Your task to perform on an android device: Empty the shopping cart on ebay.com. Search for jbl charge 4 on ebay.com, select the first entry, and add it to the cart. Image 0: 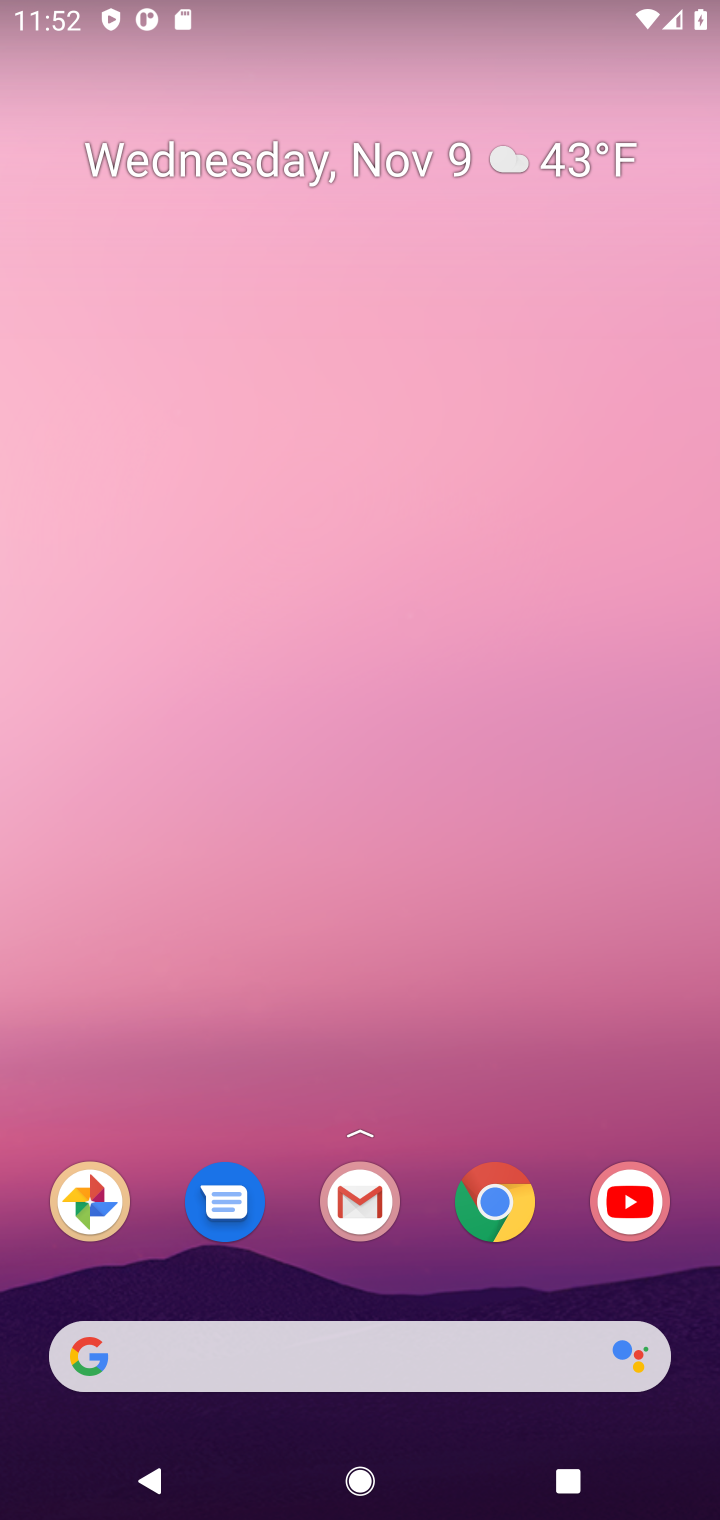
Step 0: click (490, 1195)
Your task to perform on an android device: Empty the shopping cart on ebay.com. Search for jbl charge 4 on ebay.com, select the first entry, and add it to the cart. Image 1: 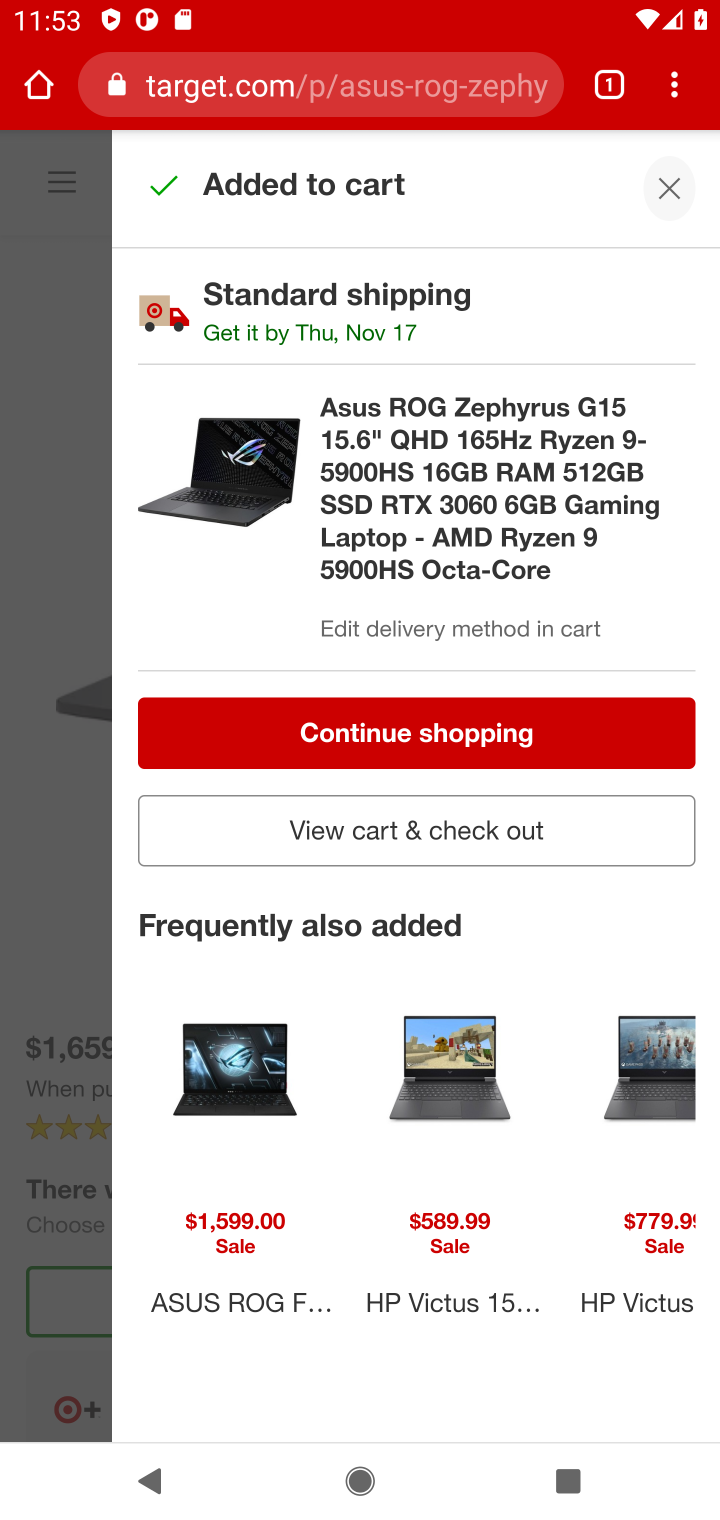
Step 1: click (406, 84)
Your task to perform on an android device: Empty the shopping cart on ebay.com. Search for jbl charge 4 on ebay.com, select the first entry, and add it to the cart. Image 2: 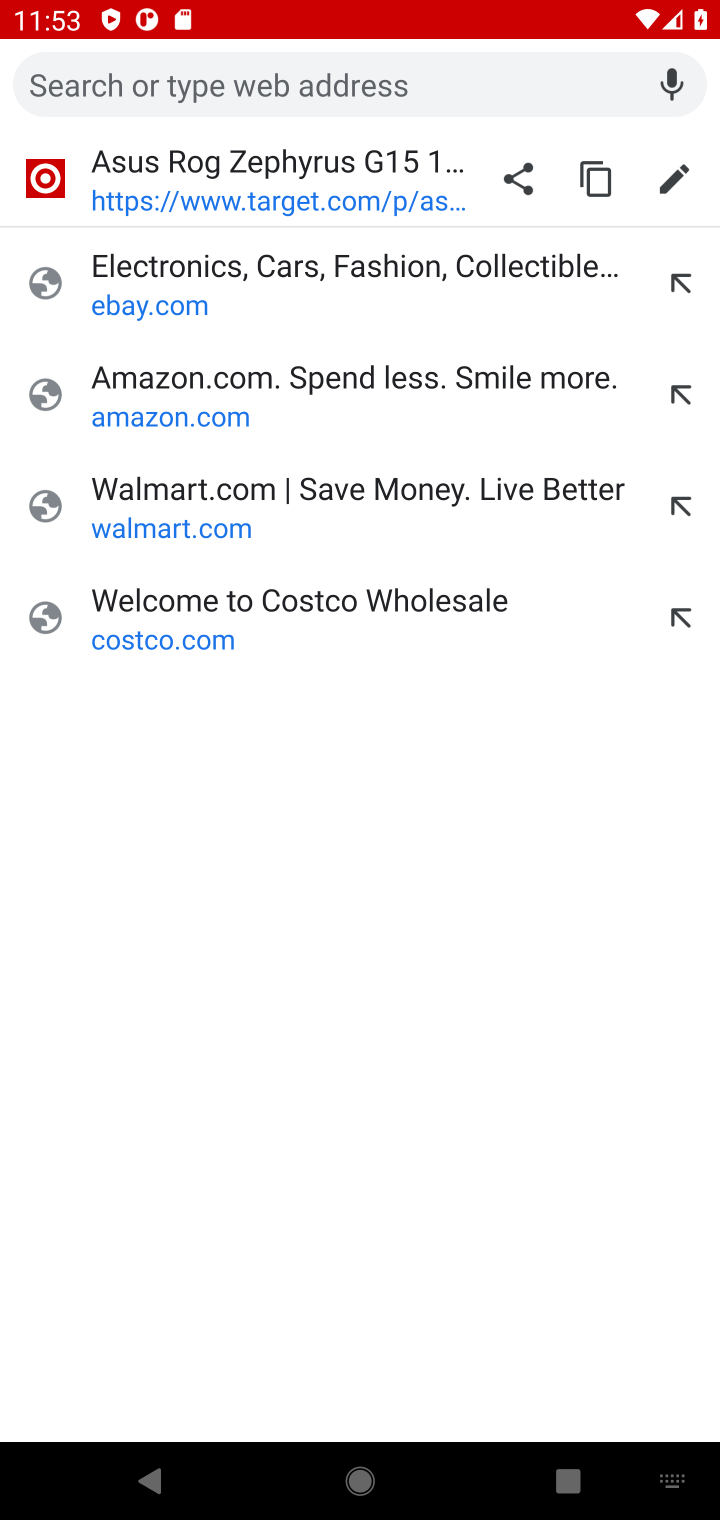
Step 2: click (436, 280)
Your task to perform on an android device: Empty the shopping cart on ebay.com. Search for jbl charge 4 on ebay.com, select the first entry, and add it to the cart. Image 3: 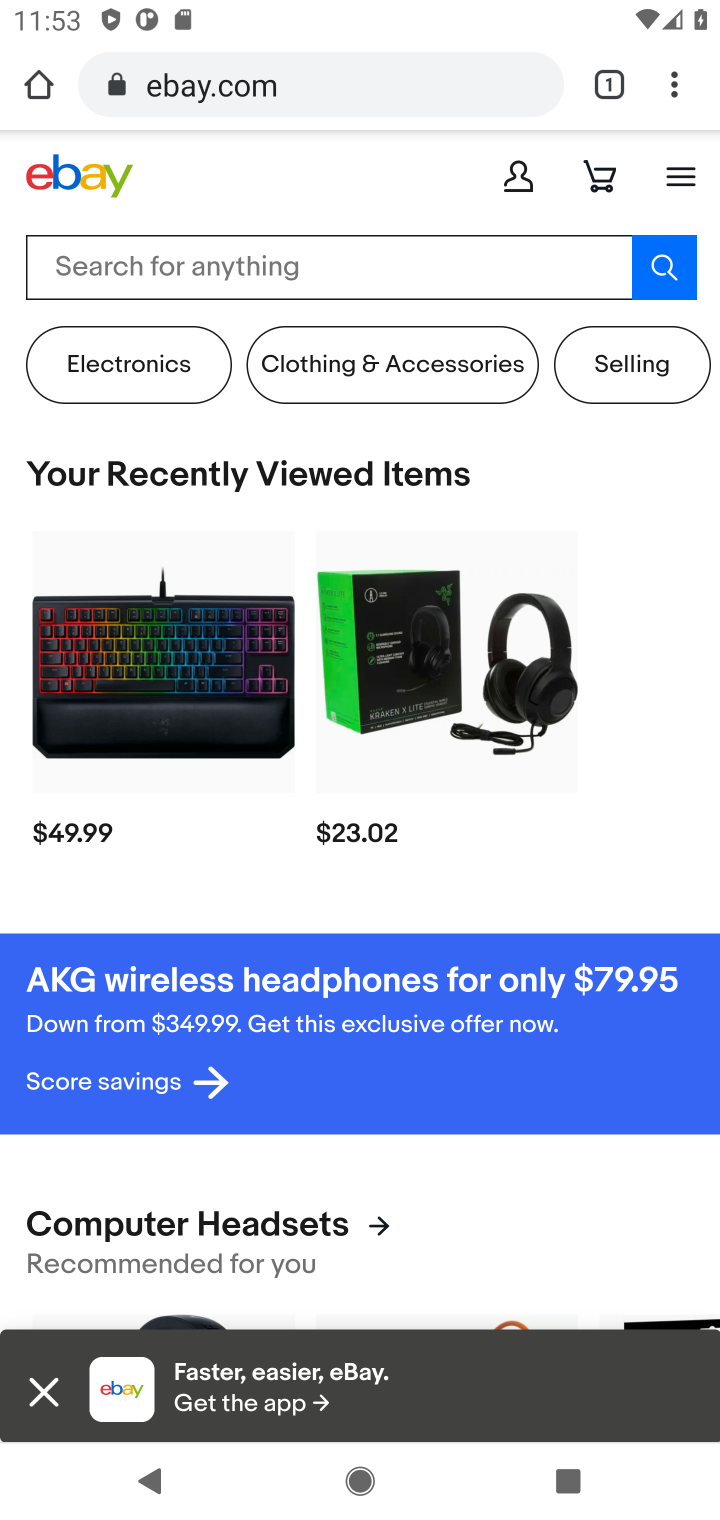
Step 3: click (611, 168)
Your task to perform on an android device: Empty the shopping cart on ebay.com. Search for jbl charge 4 on ebay.com, select the first entry, and add it to the cart. Image 4: 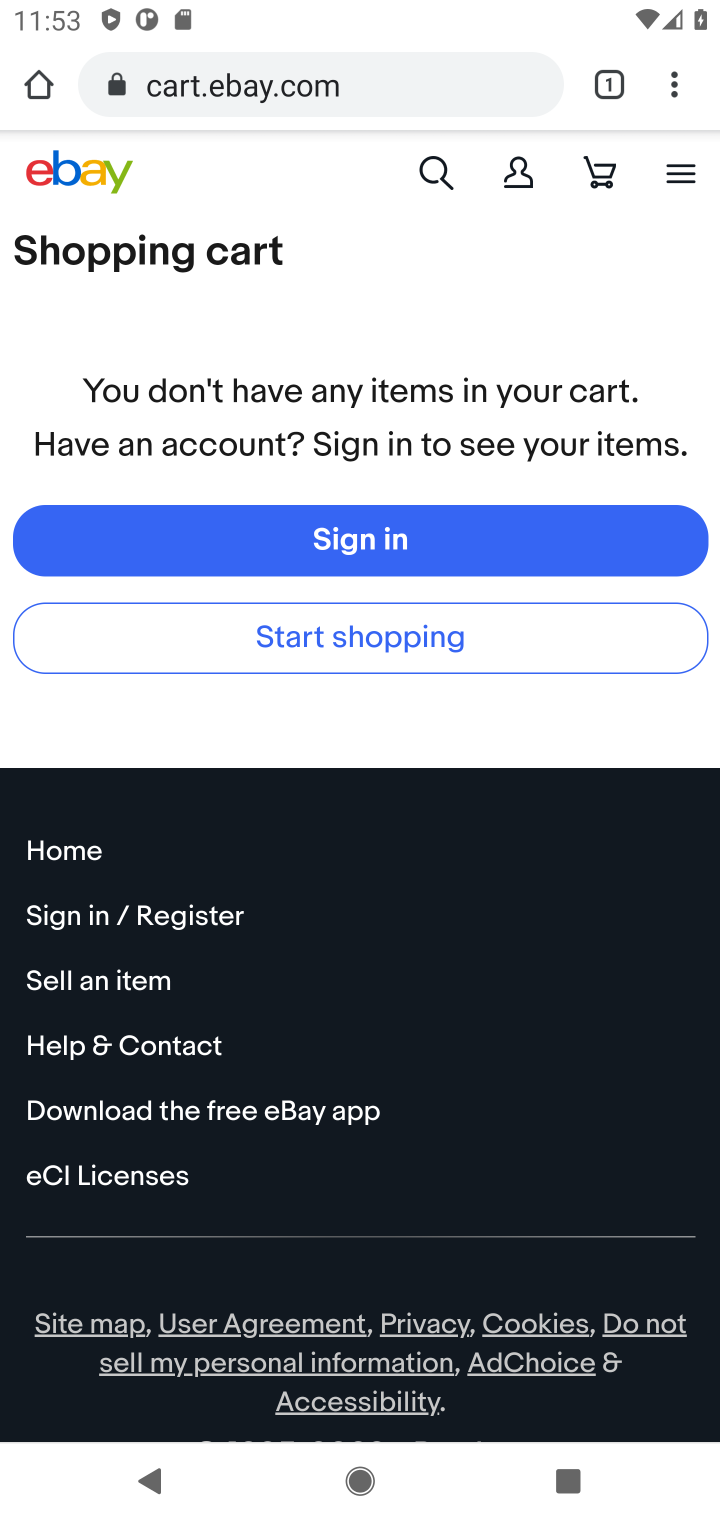
Step 4: click (436, 180)
Your task to perform on an android device: Empty the shopping cart on ebay.com. Search for jbl charge 4 on ebay.com, select the first entry, and add it to the cart. Image 5: 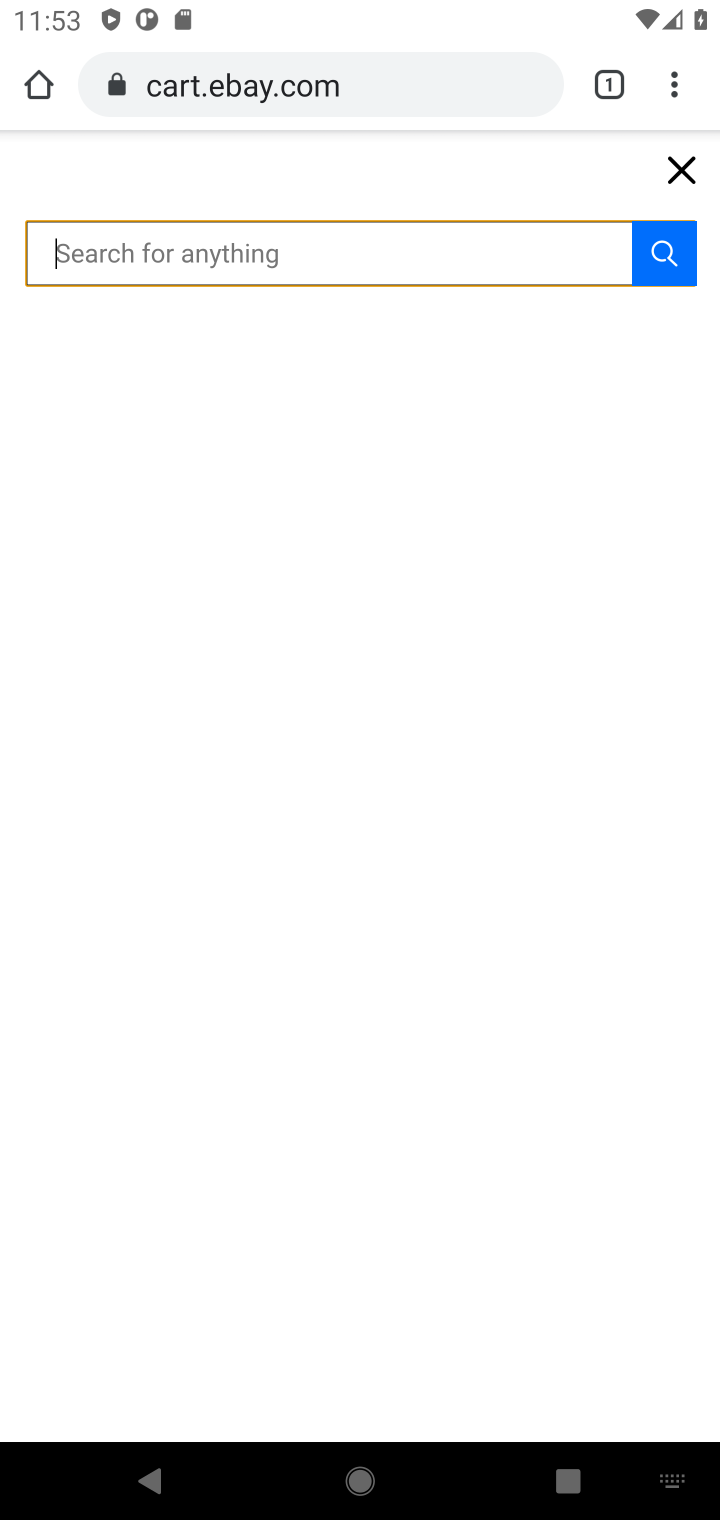
Step 5: type " jbl charge 4"
Your task to perform on an android device: Empty the shopping cart on ebay.com. Search for jbl charge 4 on ebay.com, select the first entry, and add it to the cart. Image 6: 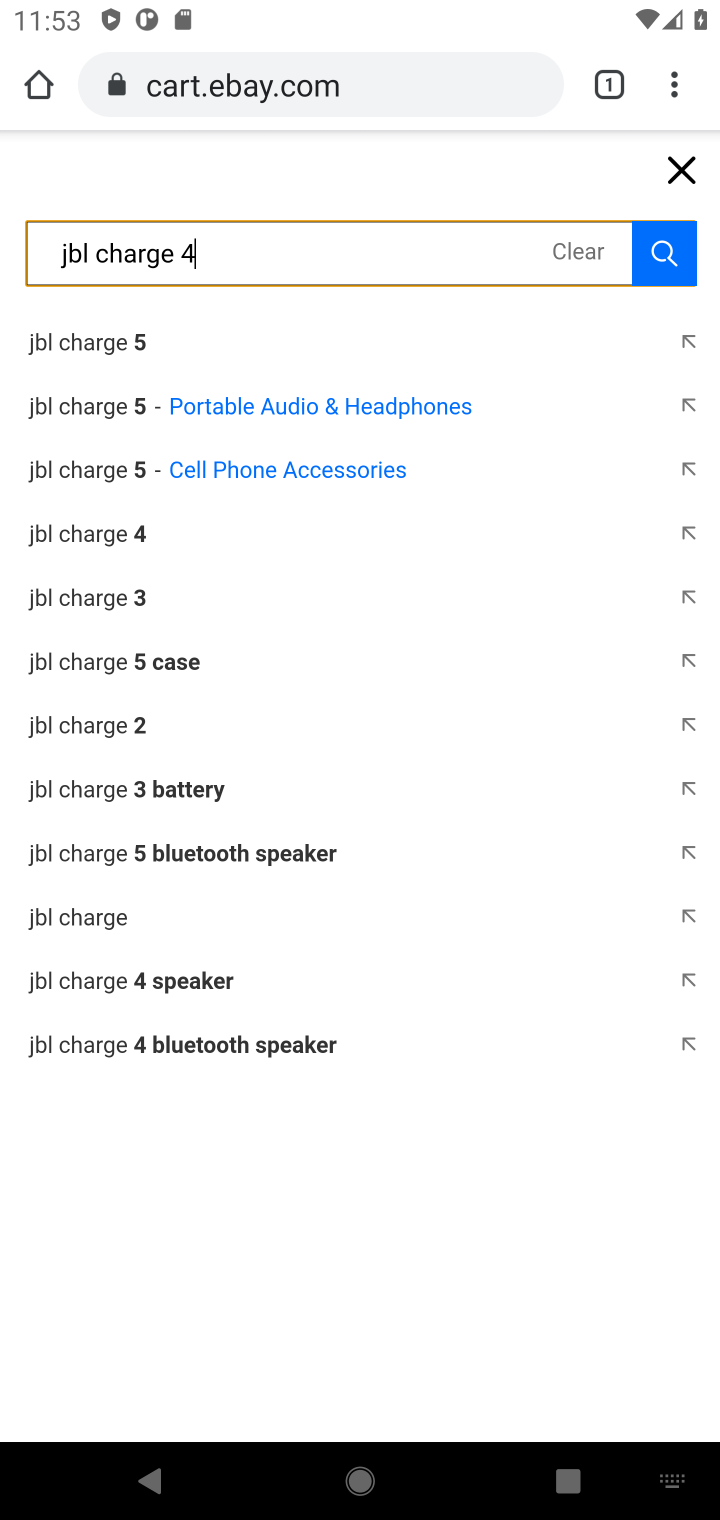
Step 6: click (119, 537)
Your task to perform on an android device: Empty the shopping cart on ebay.com. Search for jbl charge 4 on ebay.com, select the first entry, and add it to the cart. Image 7: 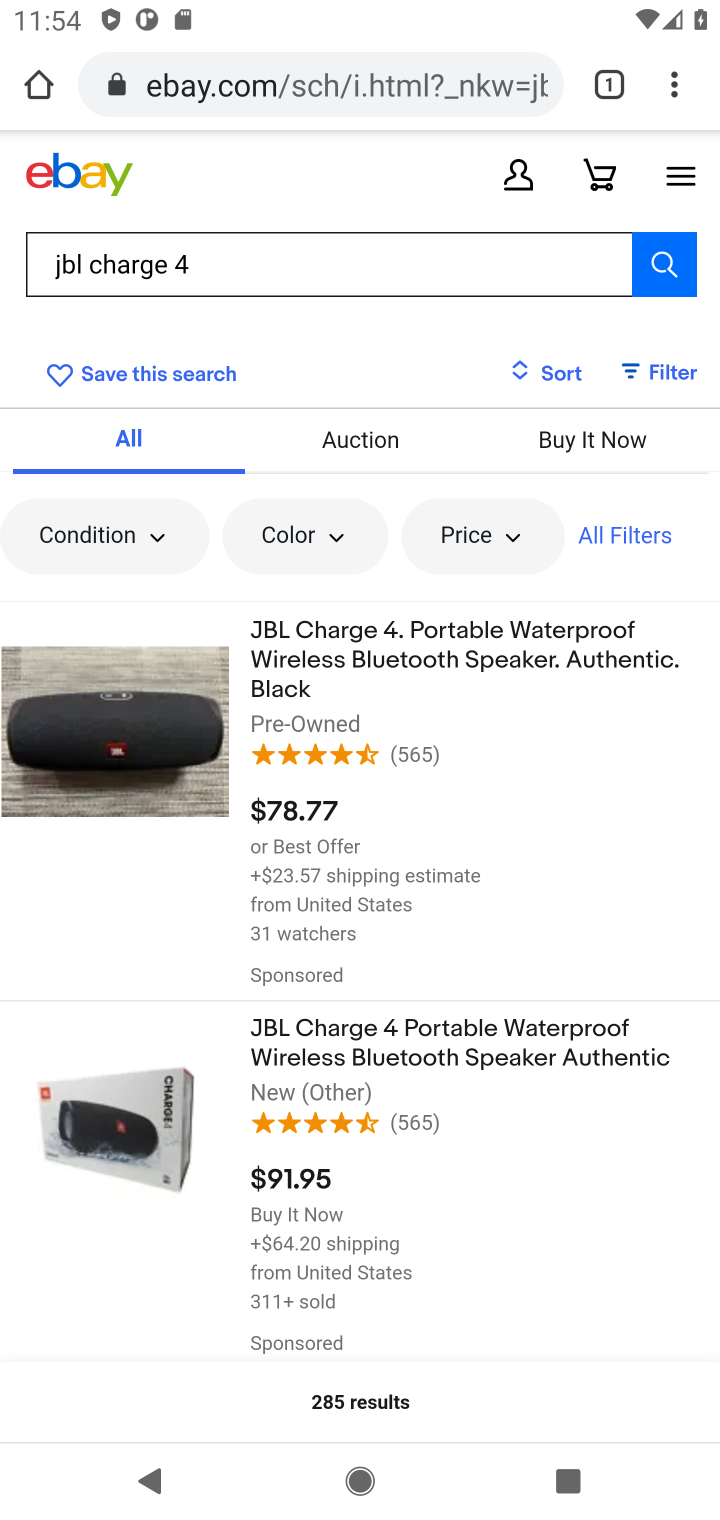
Step 7: click (181, 692)
Your task to perform on an android device: Empty the shopping cart on ebay.com. Search for jbl charge 4 on ebay.com, select the first entry, and add it to the cart. Image 8: 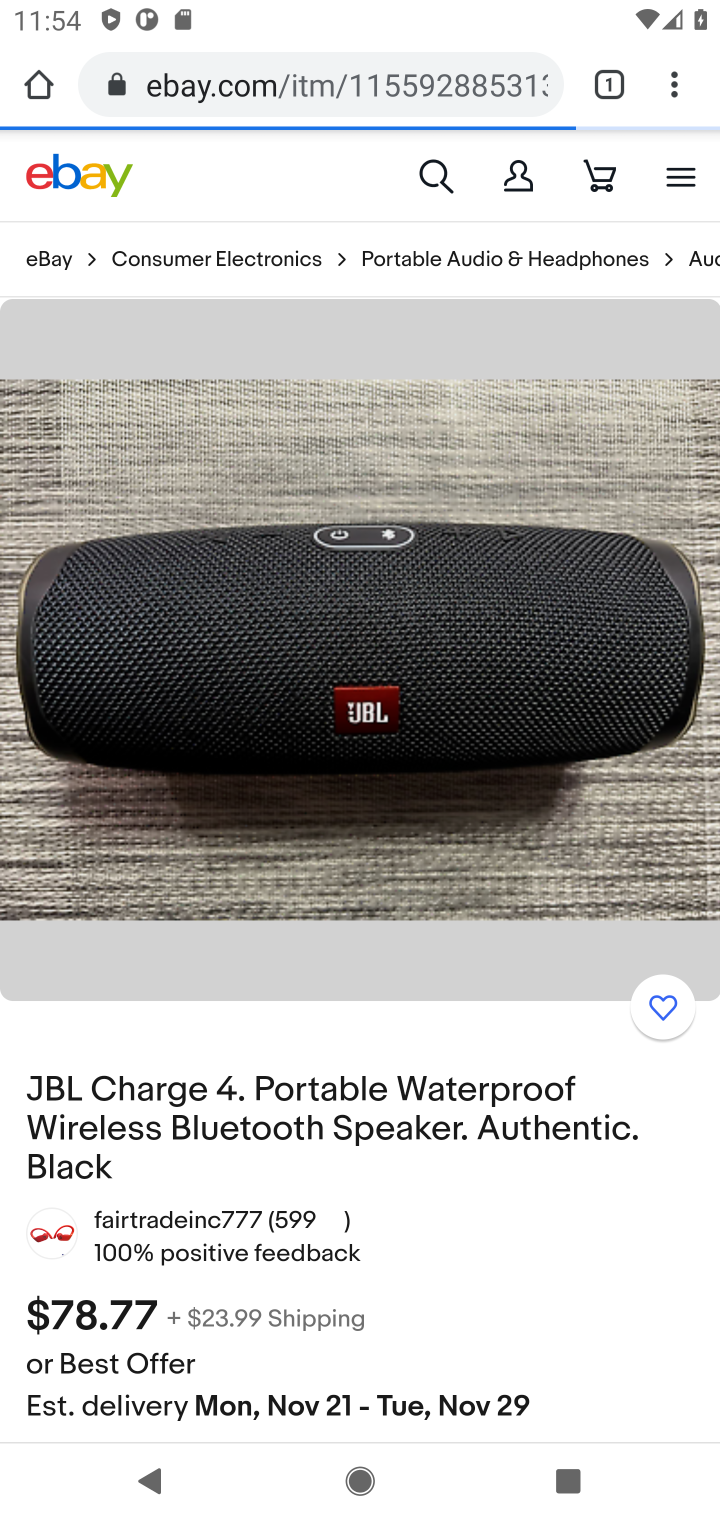
Step 8: drag from (569, 987) to (571, 572)
Your task to perform on an android device: Empty the shopping cart on ebay.com. Search for jbl charge 4 on ebay.com, select the first entry, and add it to the cart. Image 9: 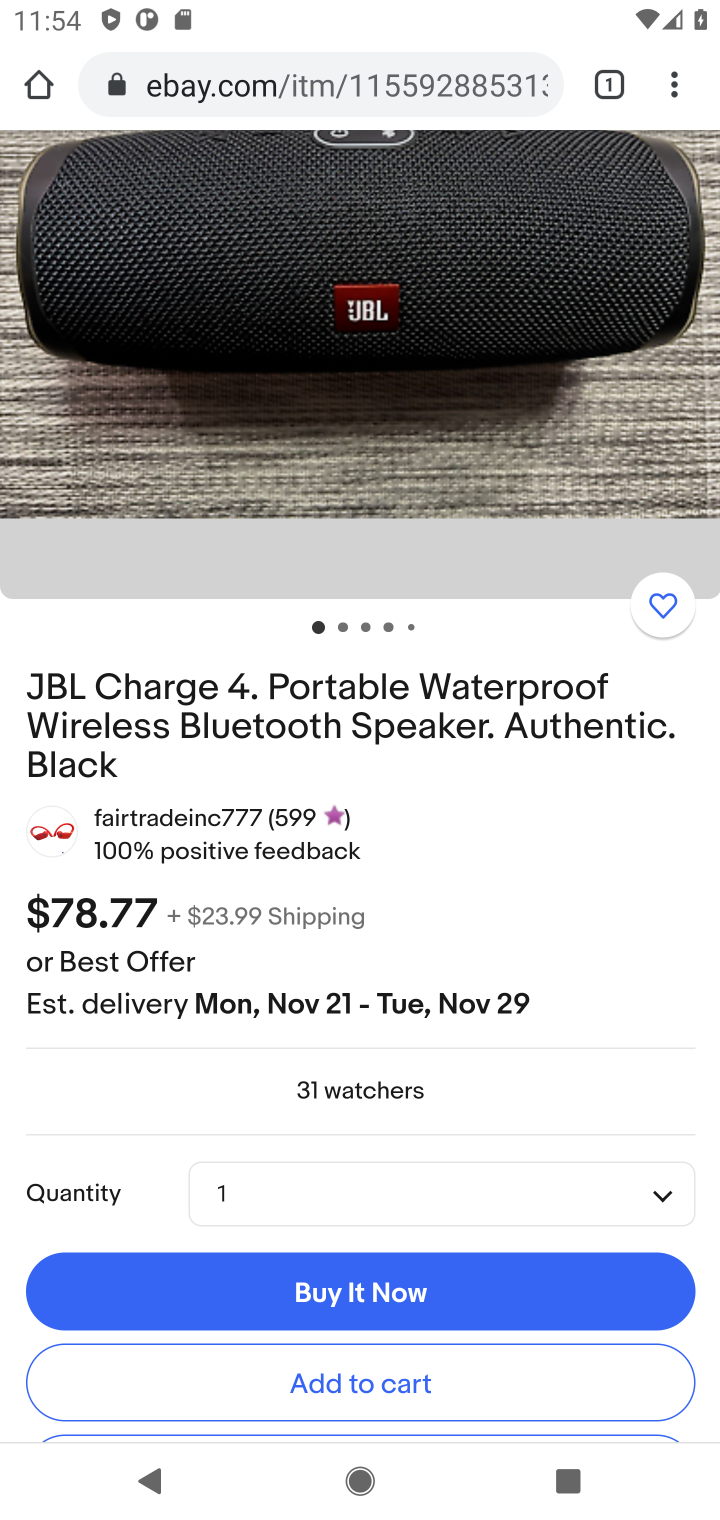
Step 9: drag from (632, 884) to (657, 402)
Your task to perform on an android device: Empty the shopping cart on ebay.com. Search for jbl charge 4 on ebay.com, select the first entry, and add it to the cart. Image 10: 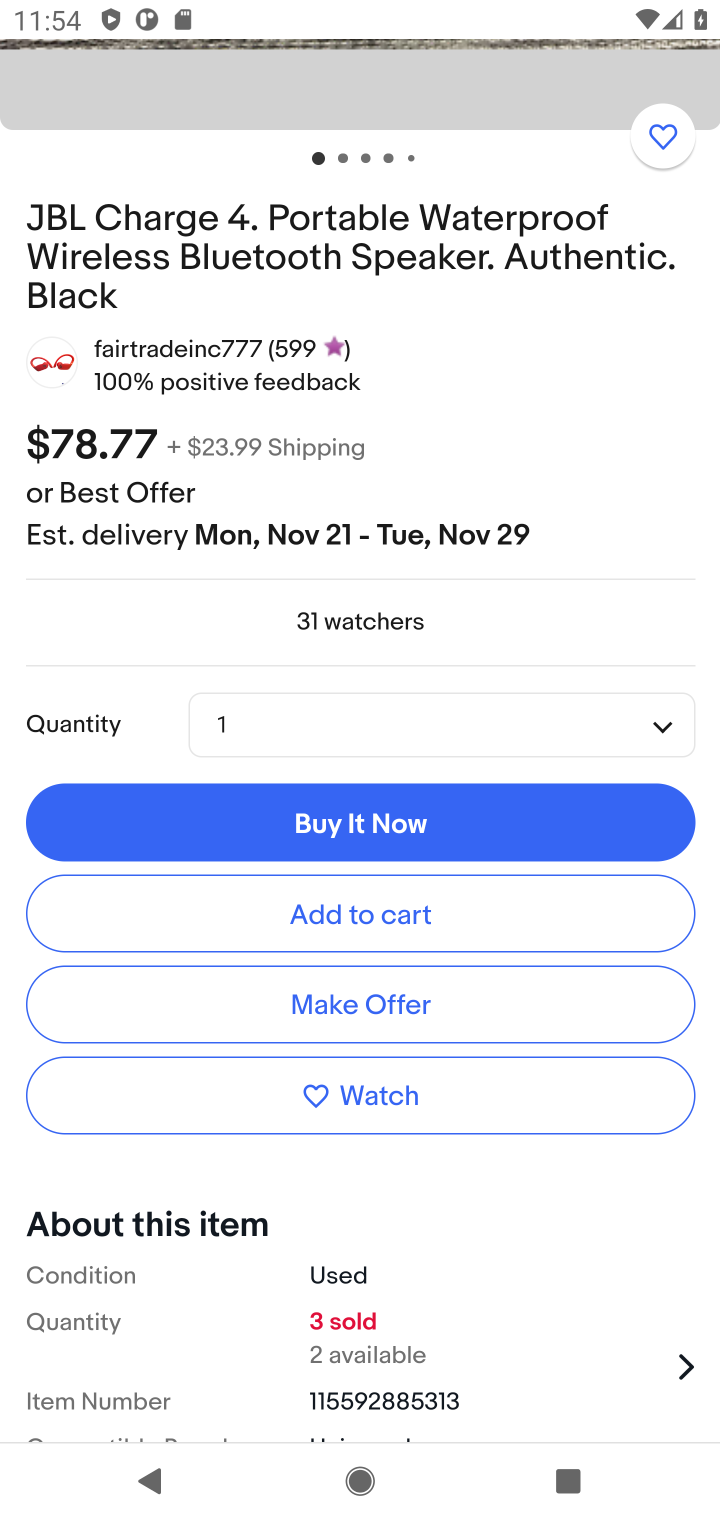
Step 10: click (319, 917)
Your task to perform on an android device: Empty the shopping cart on ebay.com. Search for jbl charge 4 on ebay.com, select the first entry, and add it to the cart. Image 11: 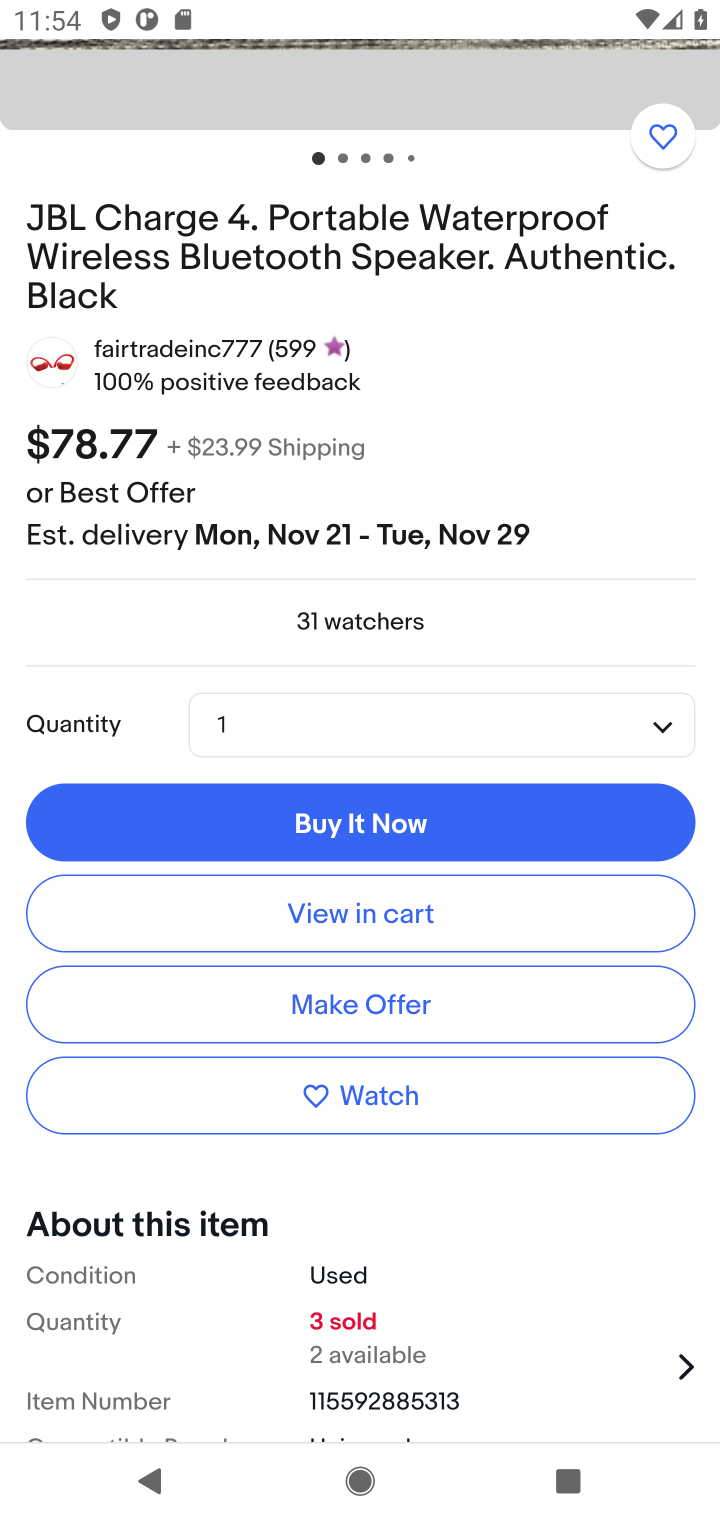
Step 11: click (319, 917)
Your task to perform on an android device: Empty the shopping cart on ebay.com. Search for jbl charge 4 on ebay.com, select the first entry, and add it to the cart. Image 12: 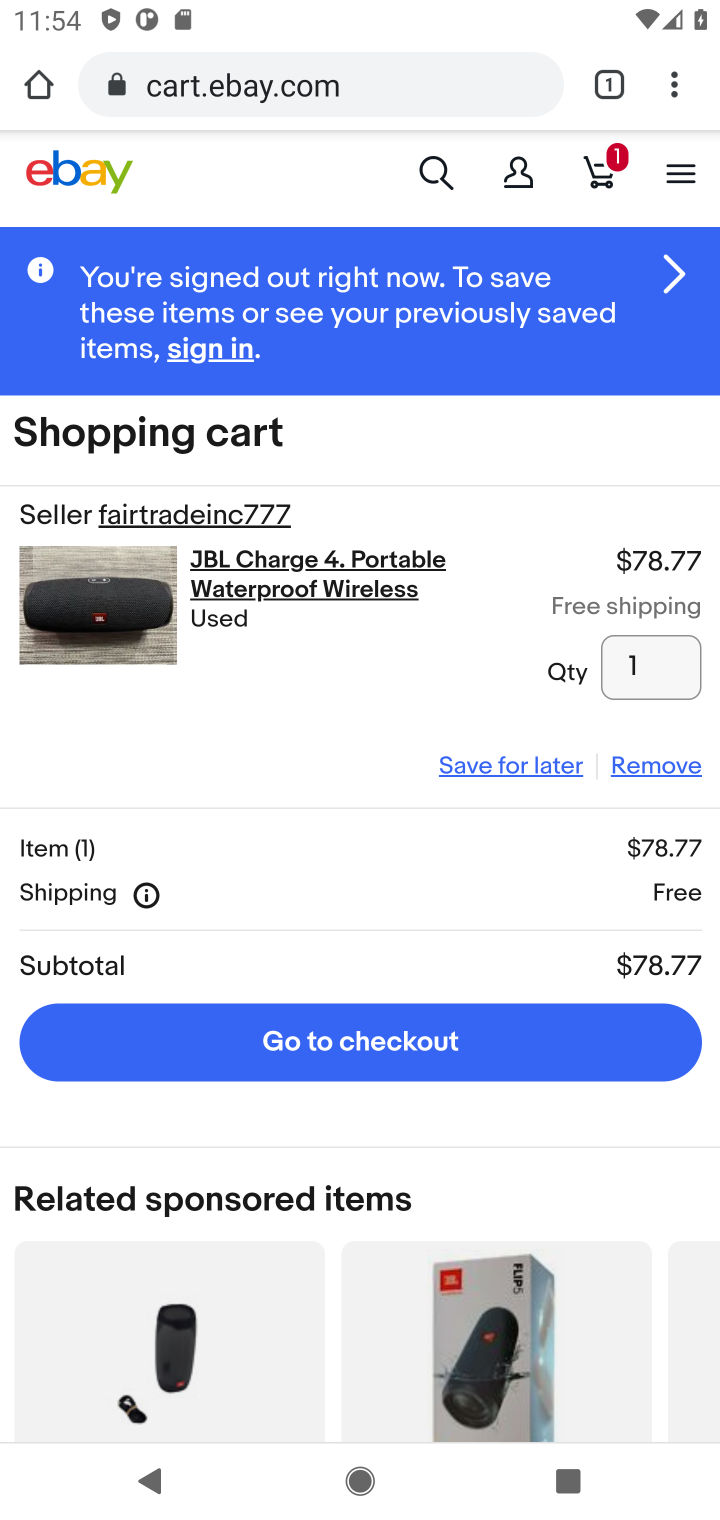
Step 12: task complete